Your task to perform on an android device: Check the settings for the Twitter app Image 0: 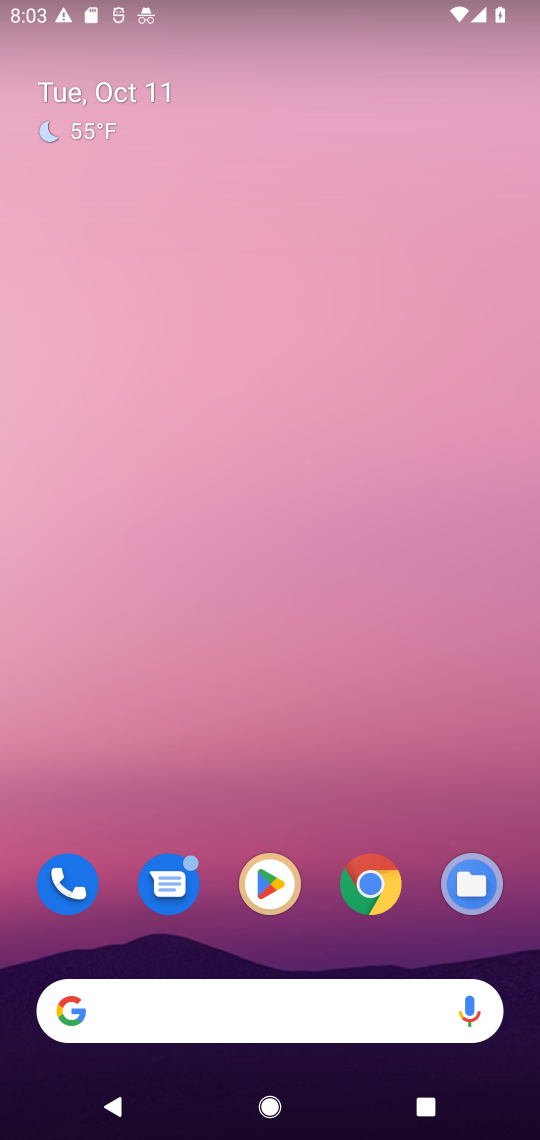
Step 0: drag from (314, 971) to (378, 0)
Your task to perform on an android device: Check the settings for the Twitter app Image 1: 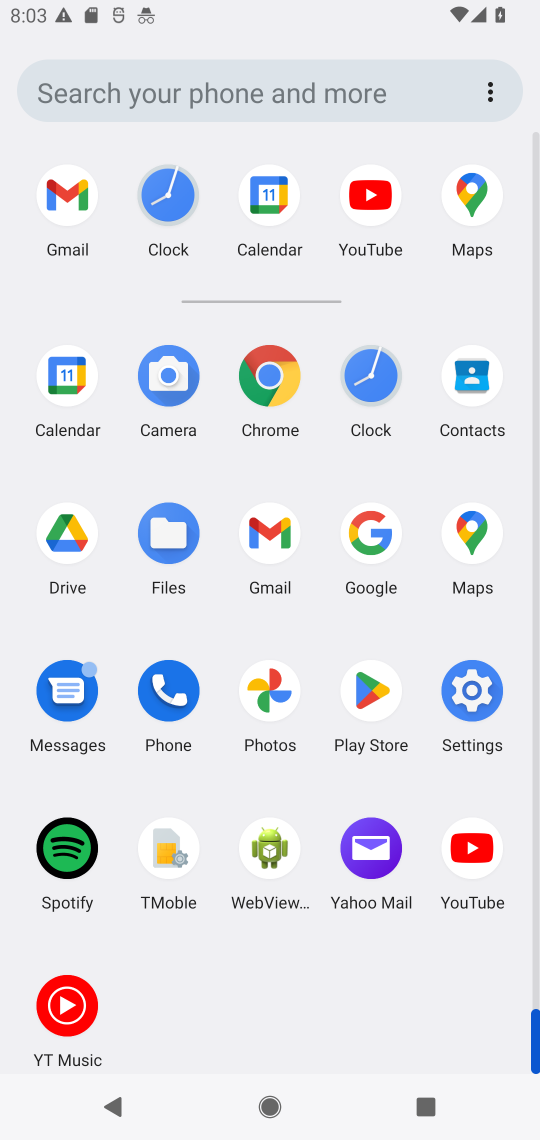
Step 1: click (375, 692)
Your task to perform on an android device: Check the settings for the Twitter app Image 2: 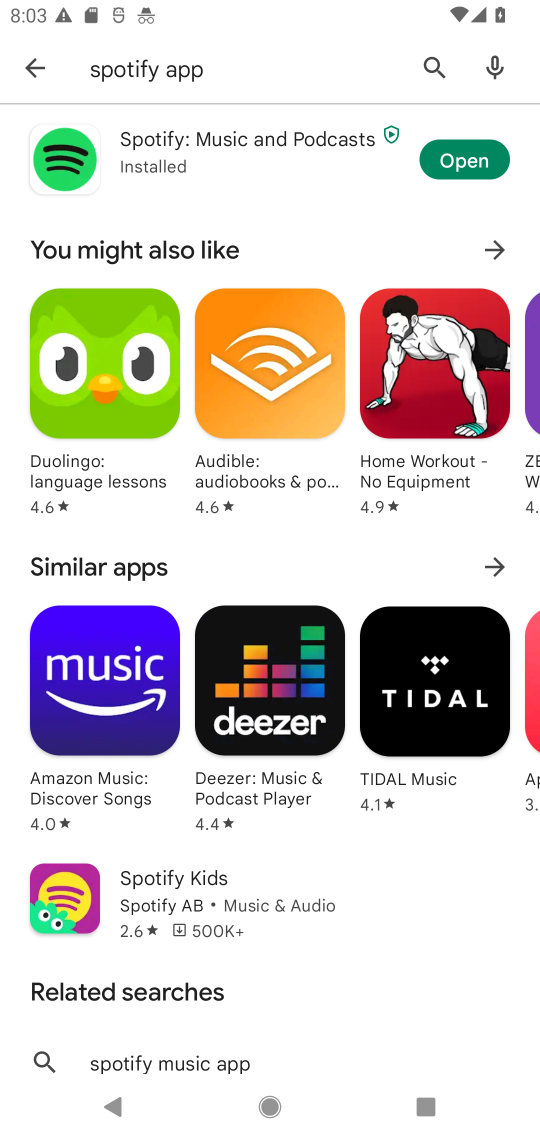
Step 2: click (442, 59)
Your task to perform on an android device: Check the settings for the Twitter app Image 3: 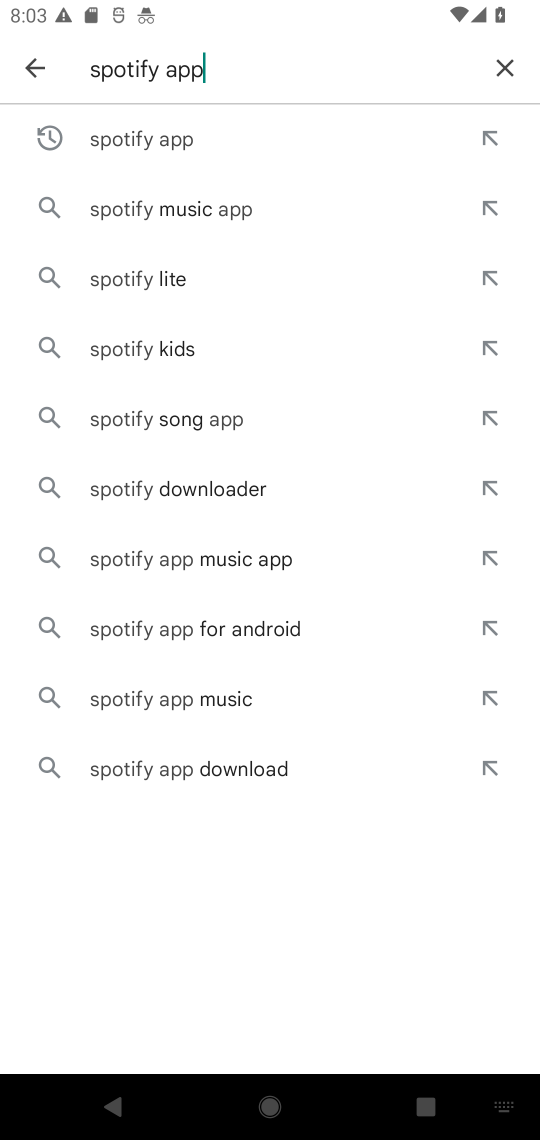
Step 3: click (495, 64)
Your task to perform on an android device: Check the settings for the Twitter app Image 4: 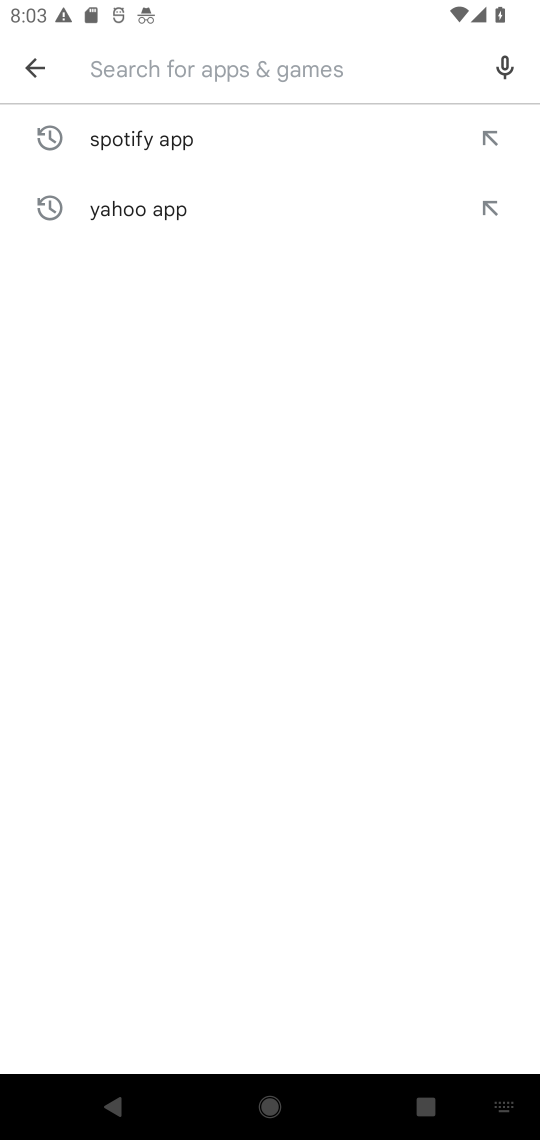
Step 4: type "Twitter app"
Your task to perform on an android device: Check the settings for the Twitter app Image 5: 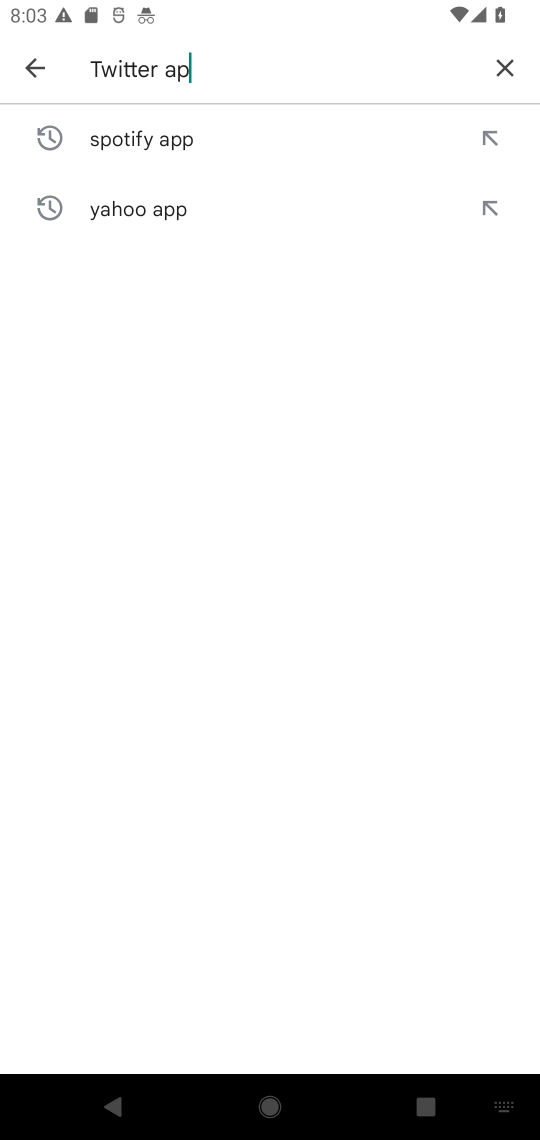
Step 5: type ""
Your task to perform on an android device: Check the settings for the Twitter app Image 6: 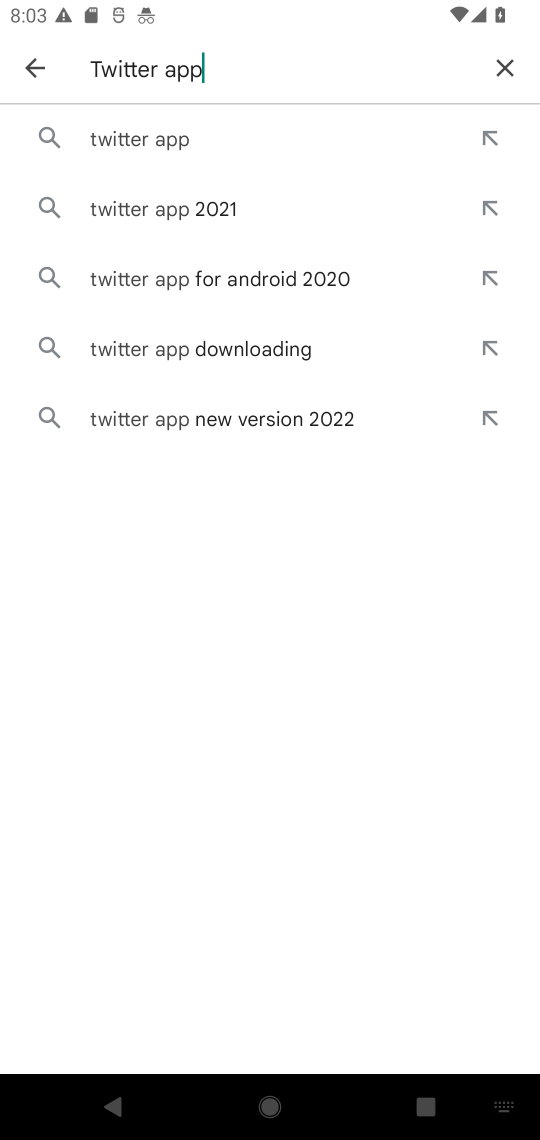
Step 6: click (180, 139)
Your task to perform on an android device: Check the settings for the Twitter app Image 7: 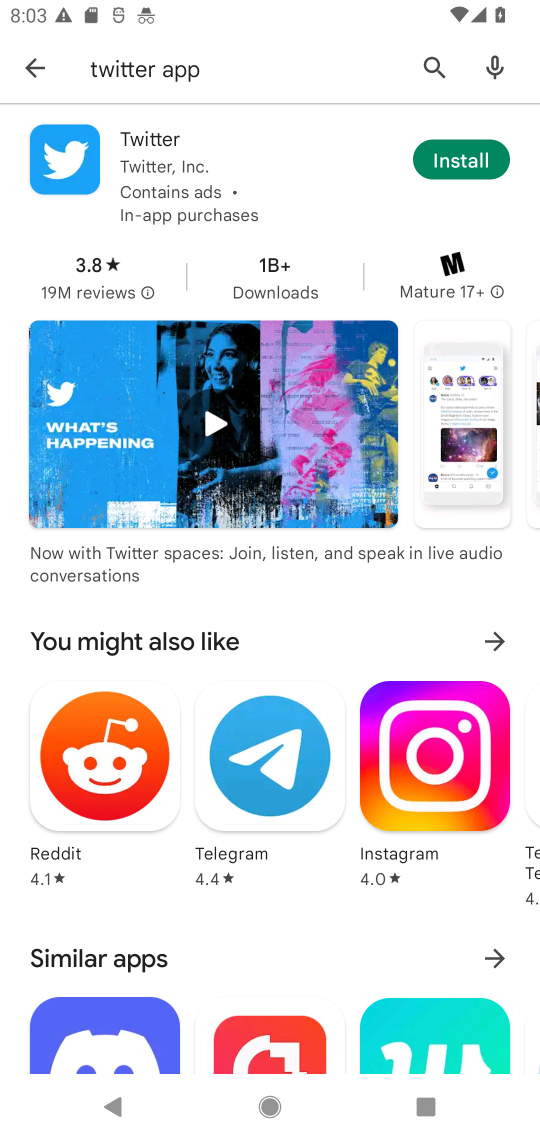
Step 7: task complete